Your task to perform on an android device: What is the speed of a skateboard? Image 0: 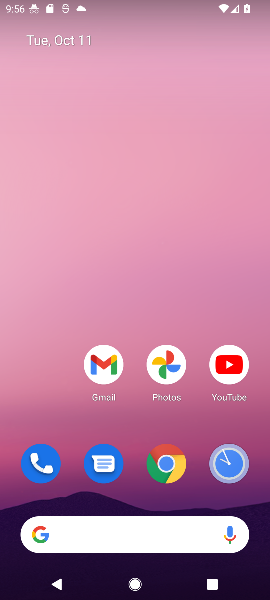
Step 0: drag from (84, 518) to (94, 129)
Your task to perform on an android device: What is the speed of a skateboard? Image 1: 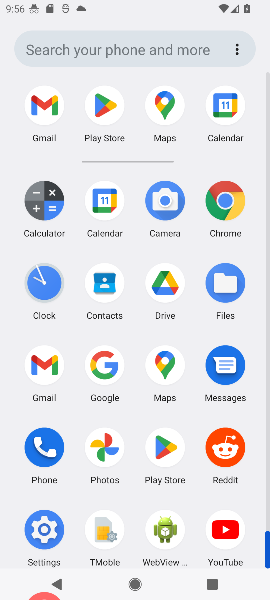
Step 1: click (102, 370)
Your task to perform on an android device: What is the speed of a skateboard? Image 2: 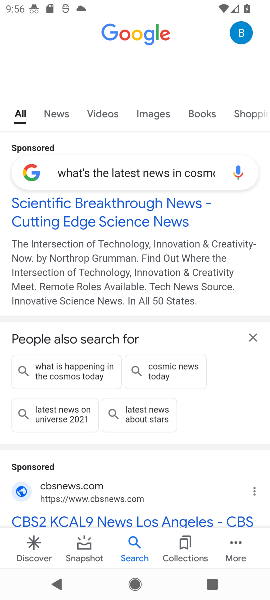
Step 2: click (158, 167)
Your task to perform on an android device: What is the speed of a skateboard? Image 3: 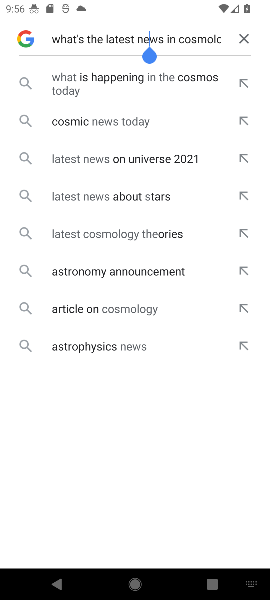
Step 3: click (237, 36)
Your task to perform on an android device: What is the speed of a skateboard? Image 4: 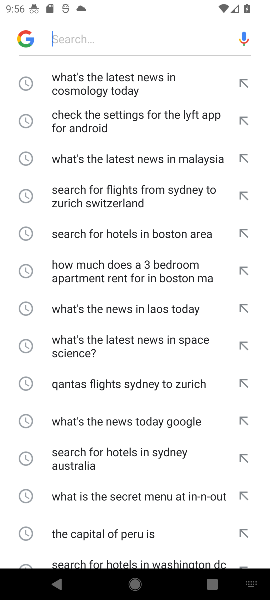
Step 4: click (144, 30)
Your task to perform on an android device: What is the speed of a skateboard? Image 5: 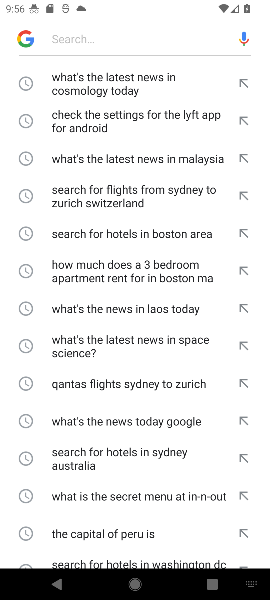
Step 5: type "What is the speed of a skateboard? "
Your task to perform on an android device: What is the speed of a skateboard? Image 6: 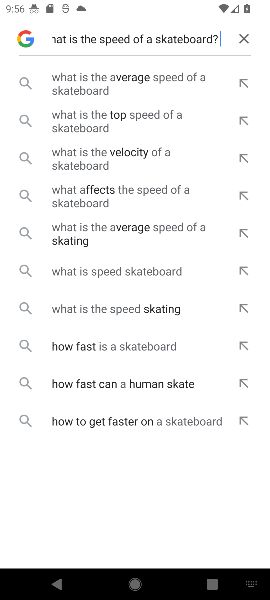
Step 6: click (124, 77)
Your task to perform on an android device: What is the speed of a skateboard? Image 7: 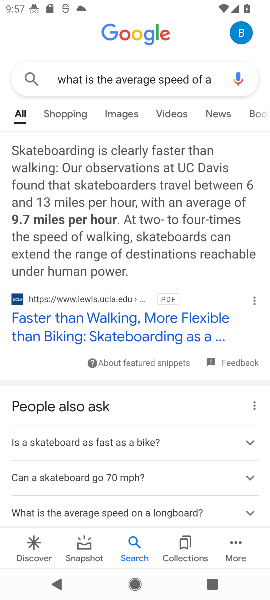
Step 7: task complete